Your task to perform on an android device: Clear the cart on amazon.com. Search for rayovac triple a on amazon.com, select the first entry, add it to the cart, then select checkout. Image 0: 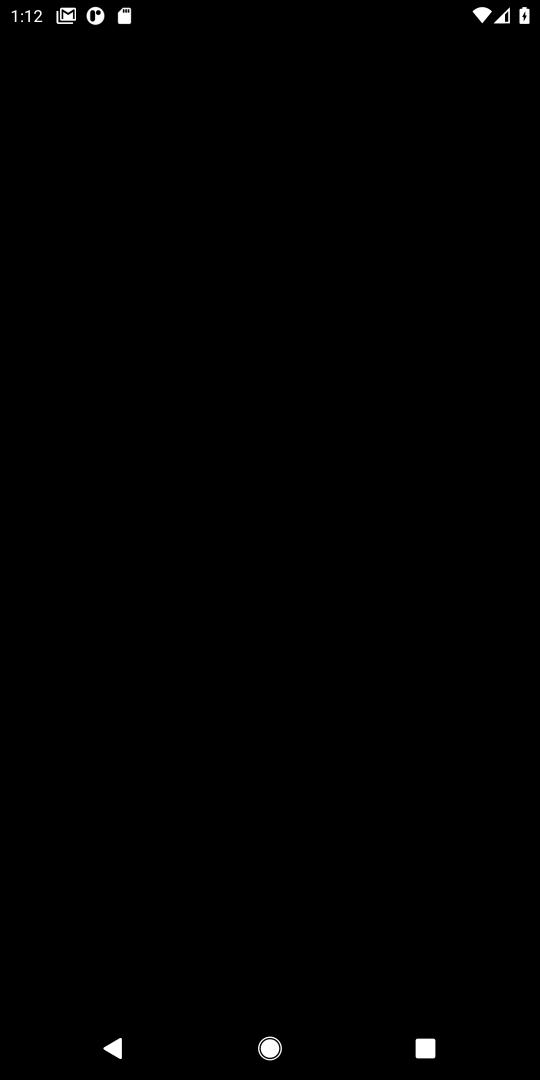
Step 0: press home button
Your task to perform on an android device: Clear the cart on amazon.com. Search for rayovac triple a on amazon.com, select the first entry, add it to the cart, then select checkout. Image 1: 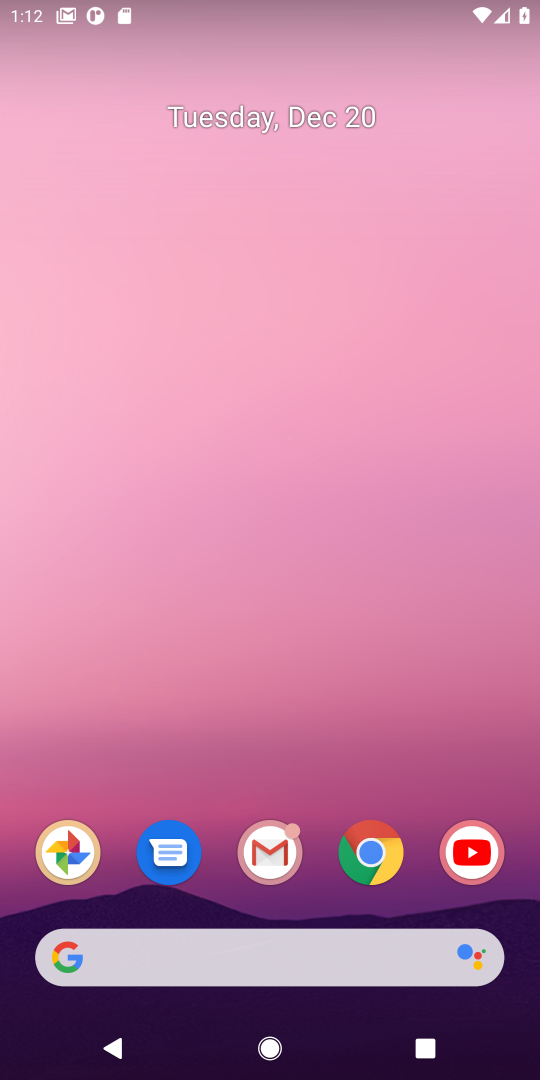
Step 1: click (372, 862)
Your task to perform on an android device: Clear the cart on amazon.com. Search for rayovac triple a on amazon.com, select the first entry, add it to the cart, then select checkout. Image 2: 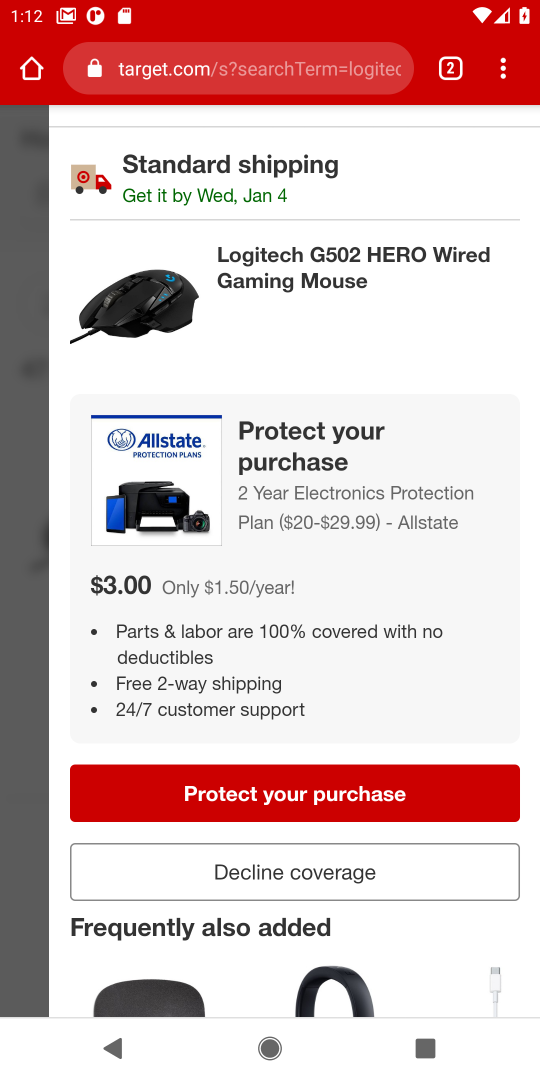
Step 2: click (211, 83)
Your task to perform on an android device: Clear the cart on amazon.com. Search for rayovac triple a on amazon.com, select the first entry, add it to the cart, then select checkout. Image 3: 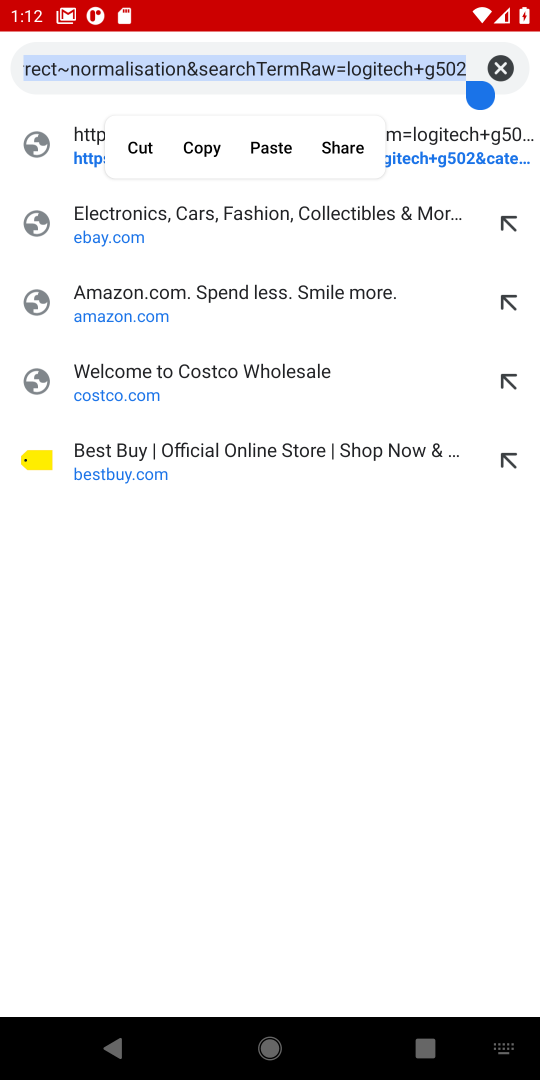
Step 3: click (84, 317)
Your task to perform on an android device: Clear the cart on amazon.com. Search for rayovac triple a on amazon.com, select the first entry, add it to the cart, then select checkout. Image 4: 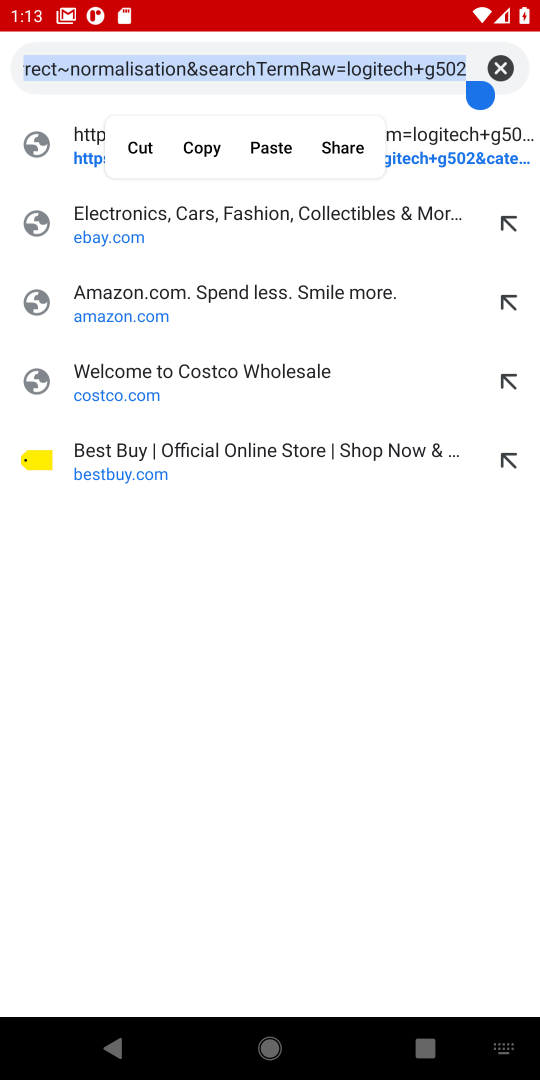
Step 4: click (111, 310)
Your task to perform on an android device: Clear the cart on amazon.com. Search for rayovac triple a on amazon.com, select the first entry, add it to the cart, then select checkout. Image 5: 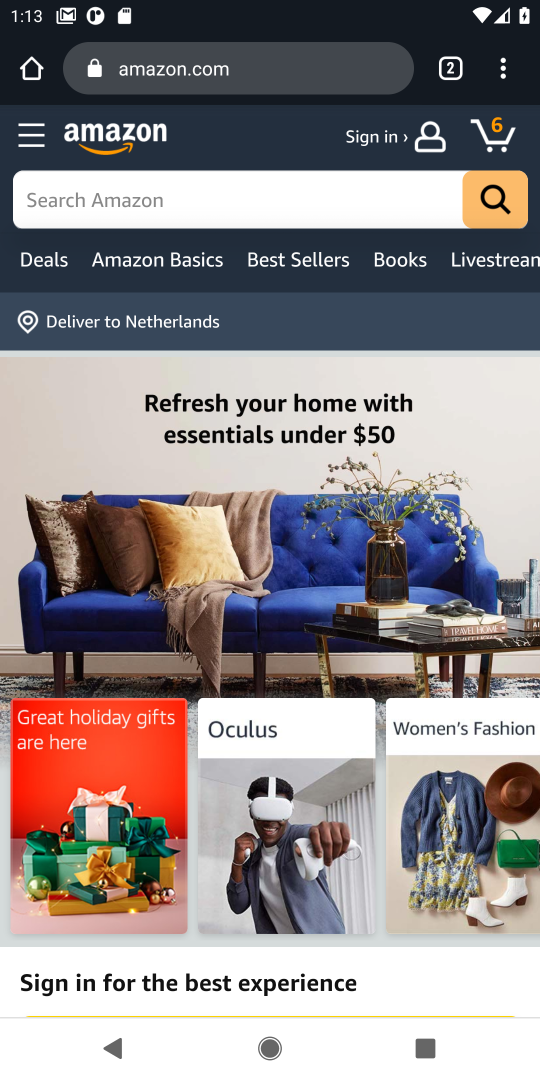
Step 5: click (491, 138)
Your task to perform on an android device: Clear the cart on amazon.com. Search for rayovac triple a on amazon.com, select the first entry, add it to the cart, then select checkout. Image 6: 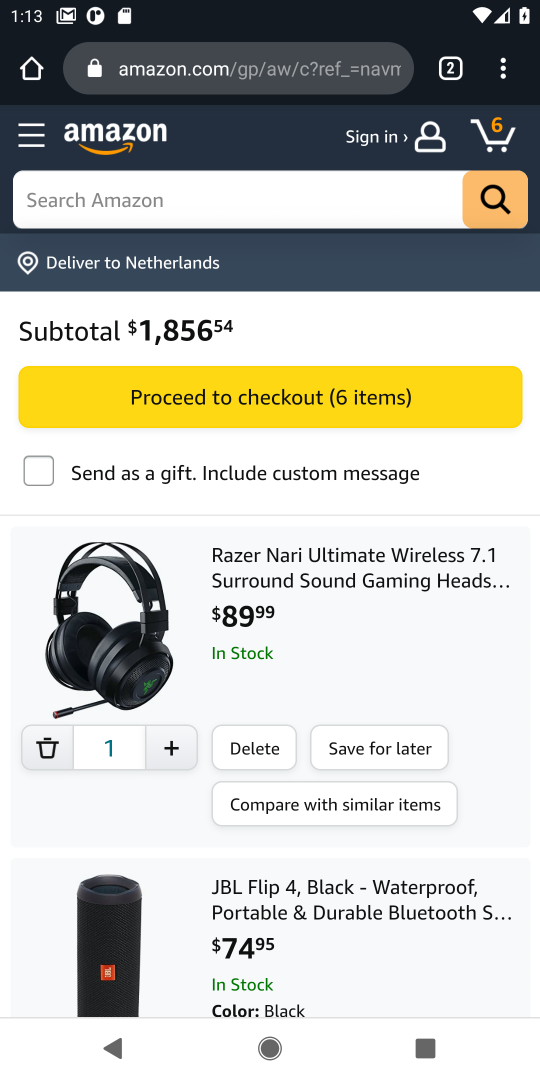
Step 6: click (251, 747)
Your task to perform on an android device: Clear the cart on amazon.com. Search for rayovac triple a on amazon.com, select the first entry, add it to the cart, then select checkout. Image 7: 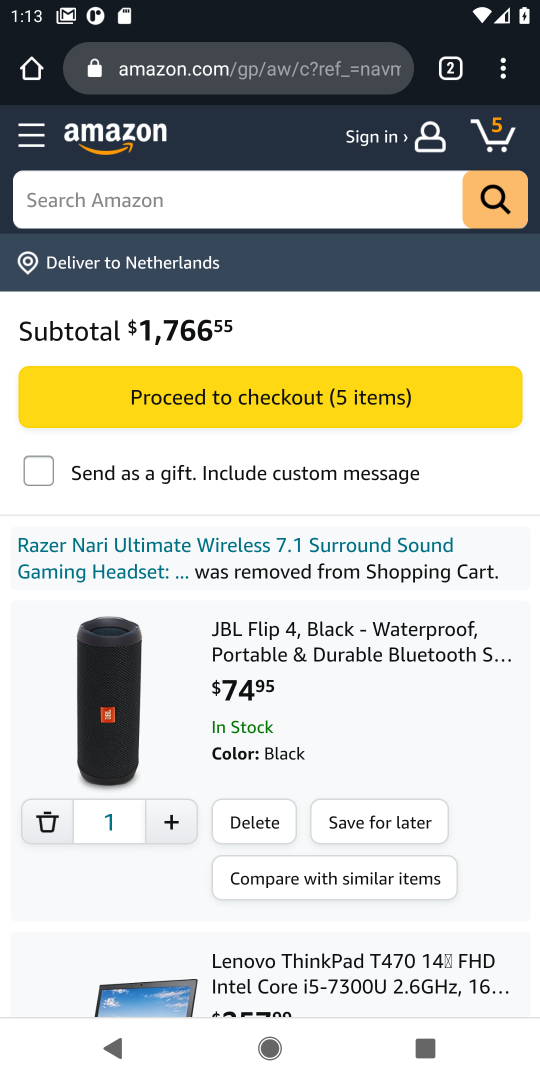
Step 7: click (239, 811)
Your task to perform on an android device: Clear the cart on amazon.com. Search for rayovac triple a on amazon.com, select the first entry, add it to the cart, then select checkout. Image 8: 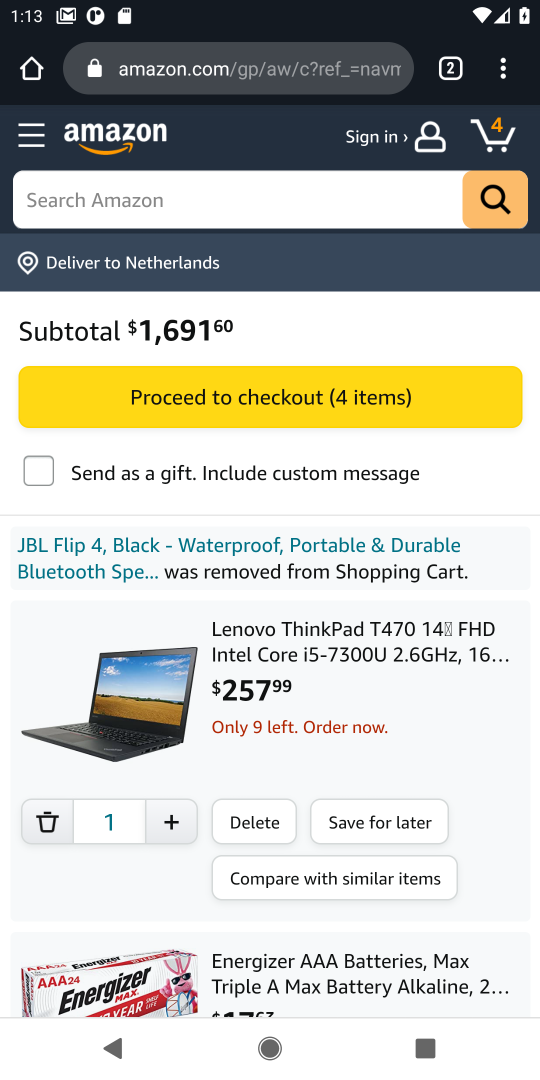
Step 8: click (239, 821)
Your task to perform on an android device: Clear the cart on amazon.com. Search for rayovac triple a on amazon.com, select the first entry, add it to the cart, then select checkout. Image 9: 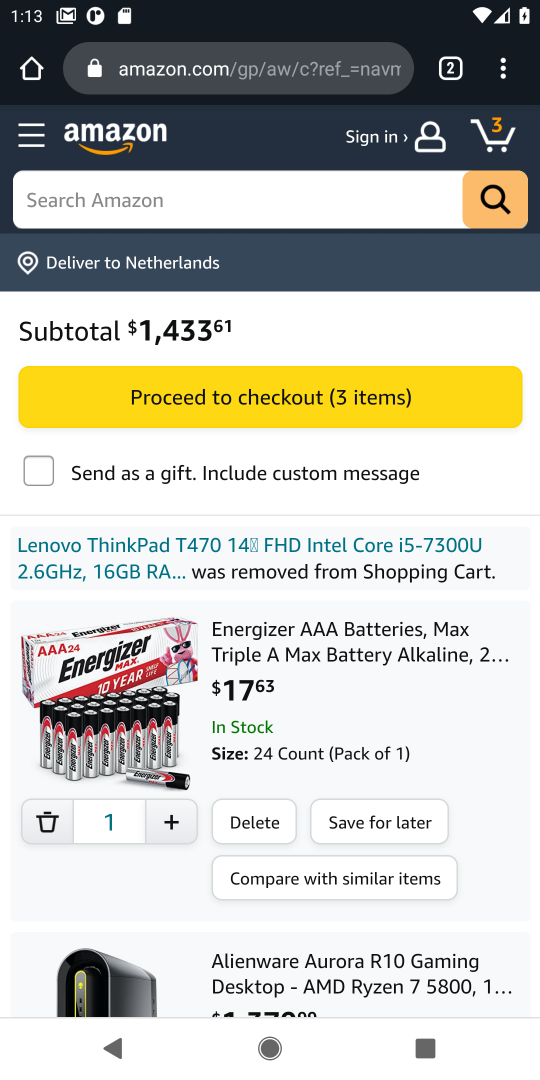
Step 9: click (239, 821)
Your task to perform on an android device: Clear the cart on amazon.com. Search for rayovac triple a on amazon.com, select the first entry, add it to the cart, then select checkout. Image 10: 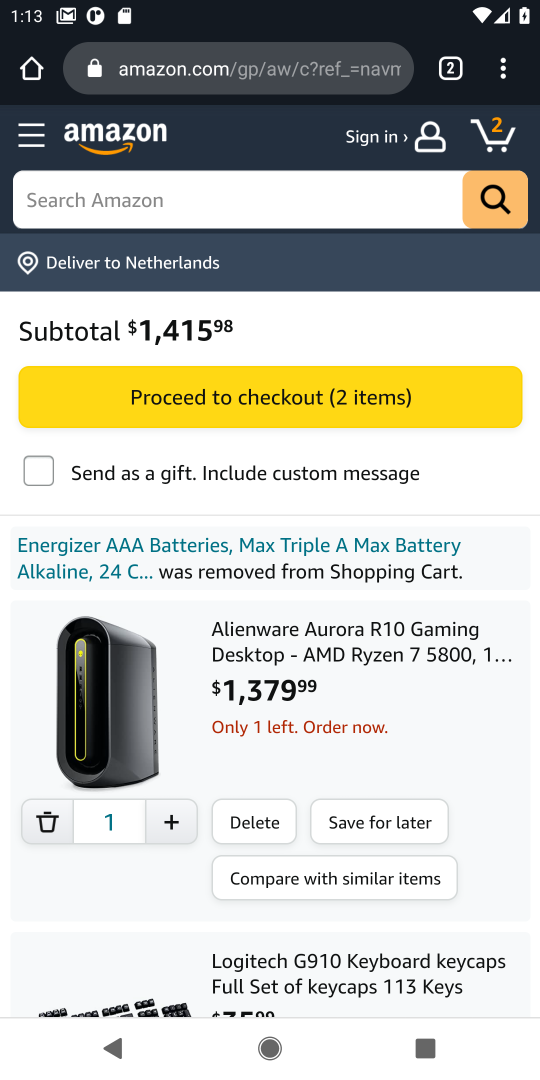
Step 10: click (239, 821)
Your task to perform on an android device: Clear the cart on amazon.com. Search for rayovac triple a on amazon.com, select the first entry, add it to the cart, then select checkout. Image 11: 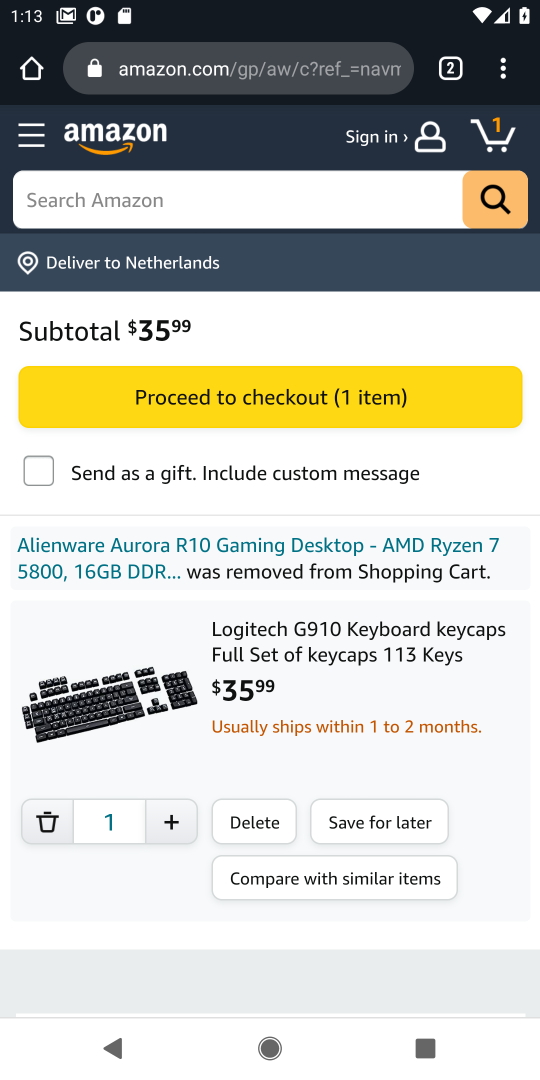
Step 11: click (239, 821)
Your task to perform on an android device: Clear the cart on amazon.com. Search for rayovac triple a on amazon.com, select the first entry, add it to the cart, then select checkout. Image 12: 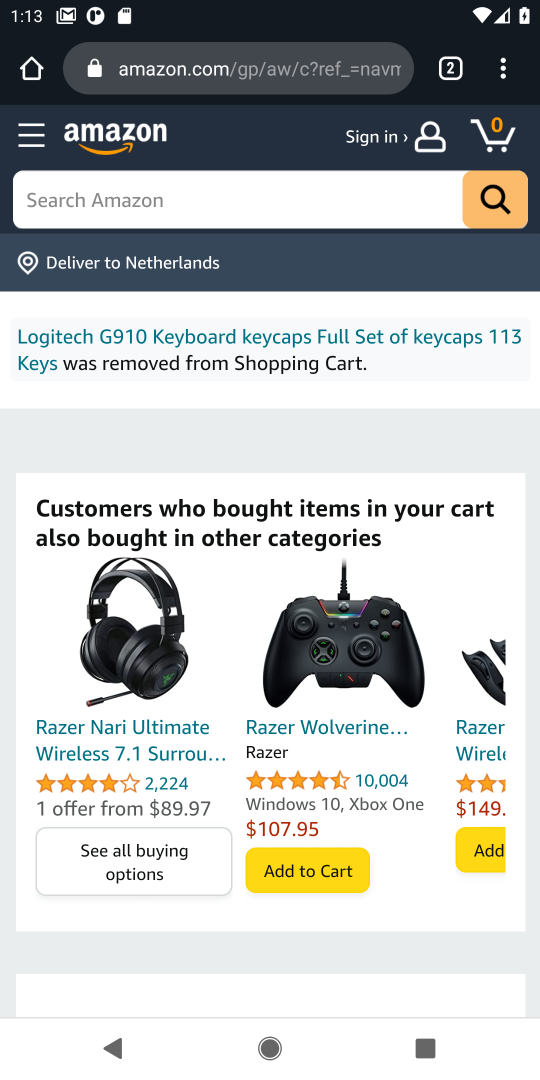
Step 12: click (52, 199)
Your task to perform on an android device: Clear the cart on amazon.com. Search for rayovac triple a on amazon.com, select the first entry, add it to the cart, then select checkout. Image 13: 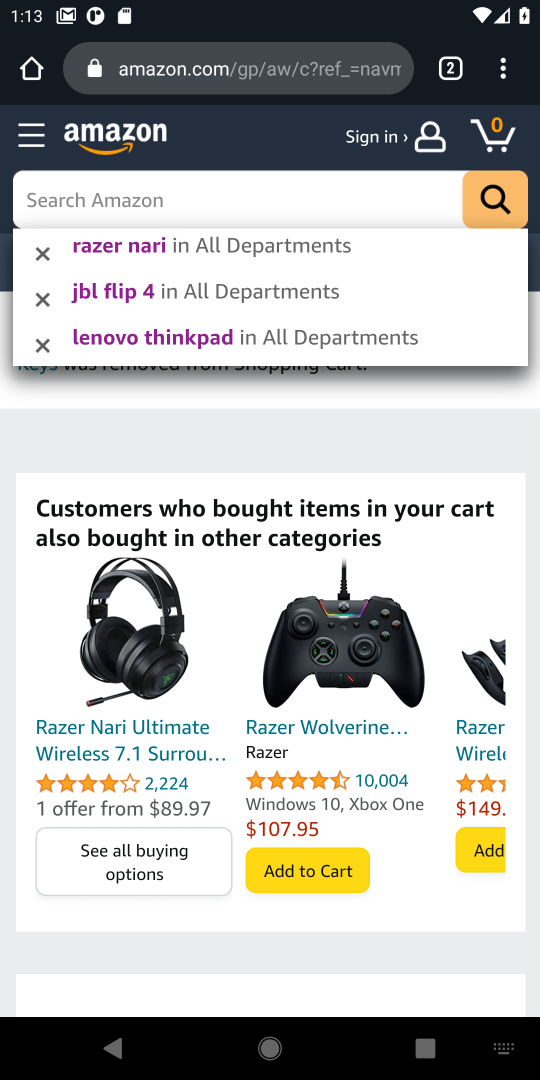
Step 13: type " rayovac triple a"
Your task to perform on an android device: Clear the cart on amazon.com. Search for rayovac triple a on amazon.com, select the first entry, add it to the cart, then select checkout. Image 14: 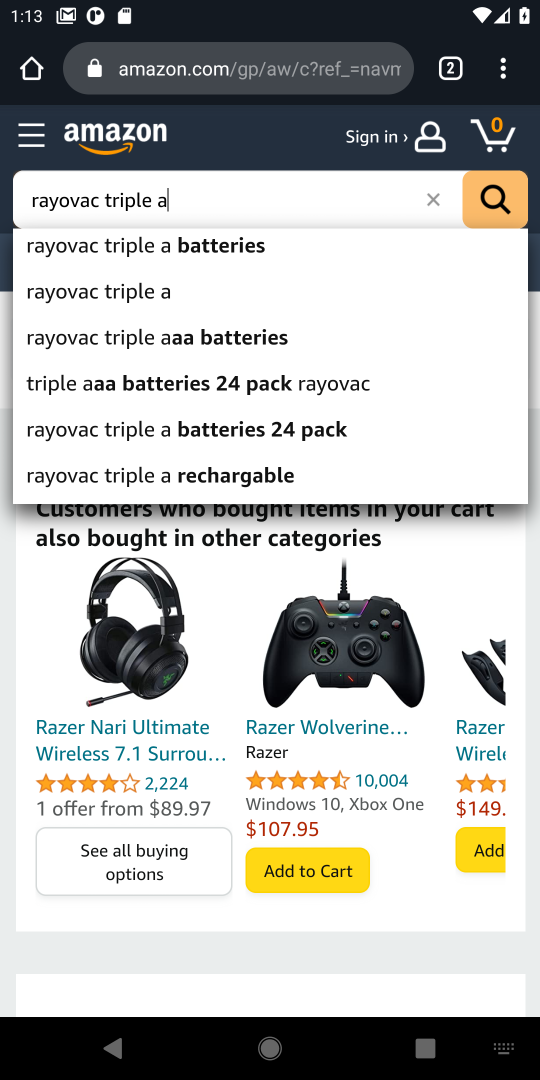
Step 14: click (155, 249)
Your task to perform on an android device: Clear the cart on amazon.com. Search for rayovac triple a on amazon.com, select the first entry, add it to the cart, then select checkout. Image 15: 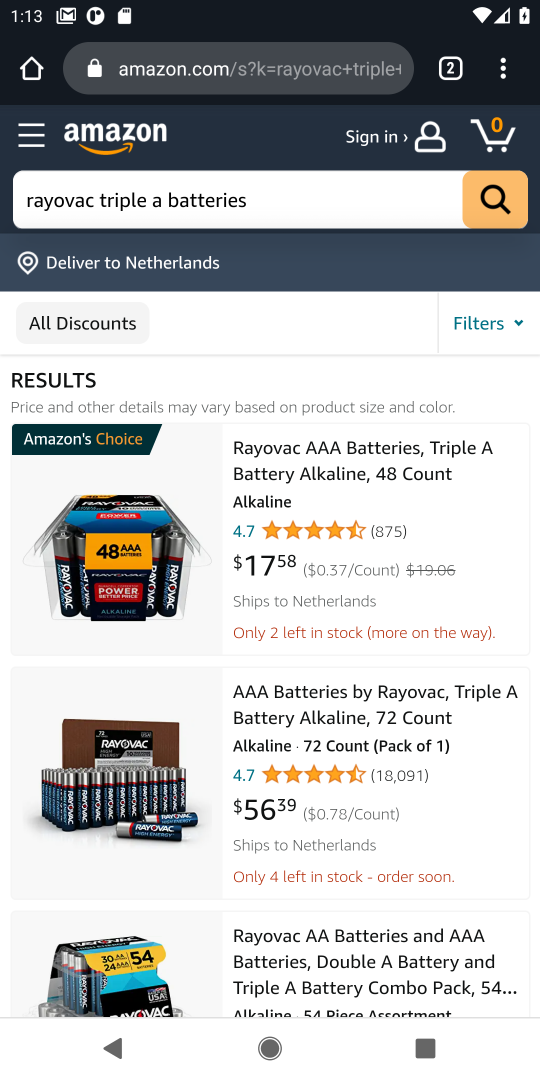
Step 15: click (277, 489)
Your task to perform on an android device: Clear the cart on amazon.com. Search for rayovac triple a on amazon.com, select the first entry, add it to the cart, then select checkout. Image 16: 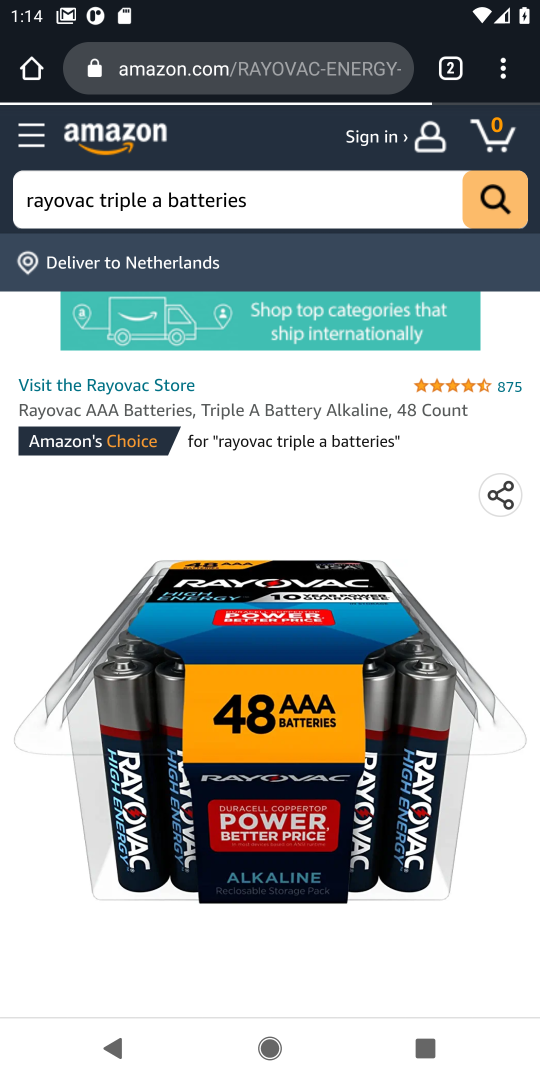
Step 16: drag from (269, 628) to (249, 377)
Your task to perform on an android device: Clear the cart on amazon.com. Search for rayovac triple a on amazon.com, select the first entry, add it to the cart, then select checkout. Image 17: 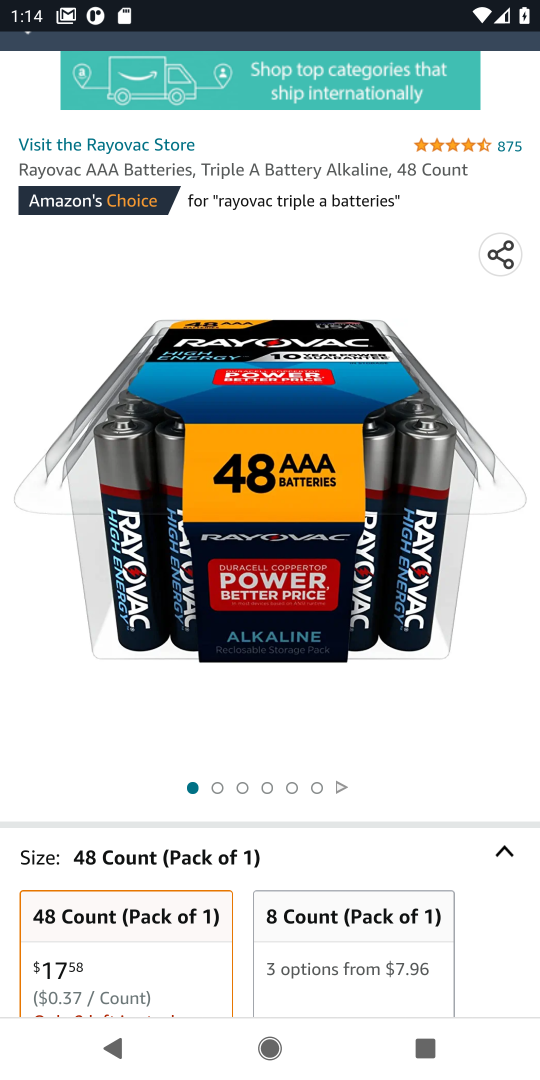
Step 17: drag from (269, 814) to (239, 340)
Your task to perform on an android device: Clear the cart on amazon.com. Search for rayovac triple a on amazon.com, select the first entry, add it to the cart, then select checkout. Image 18: 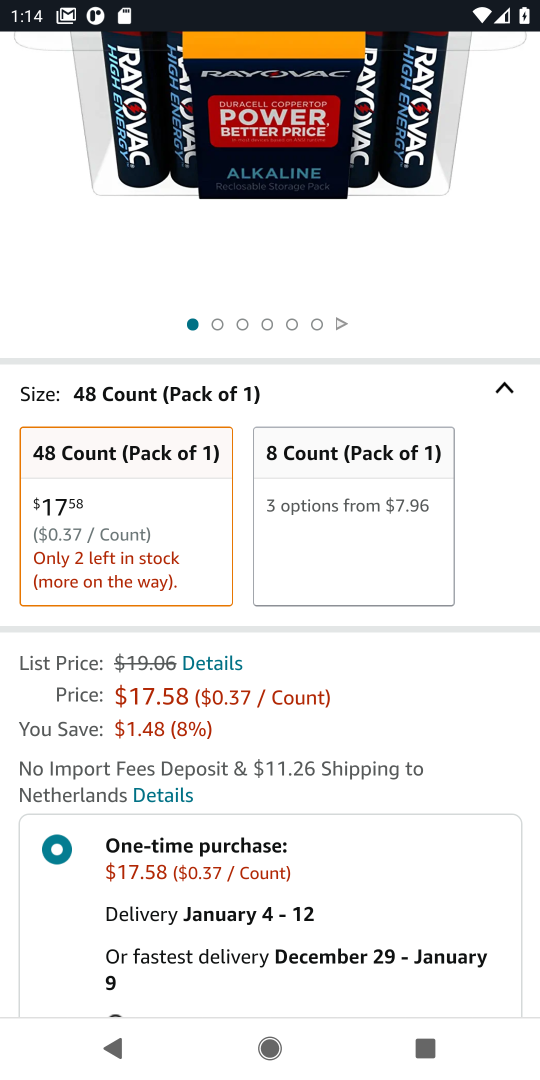
Step 18: drag from (262, 590) to (241, 319)
Your task to perform on an android device: Clear the cart on amazon.com. Search for rayovac triple a on amazon.com, select the first entry, add it to the cart, then select checkout. Image 19: 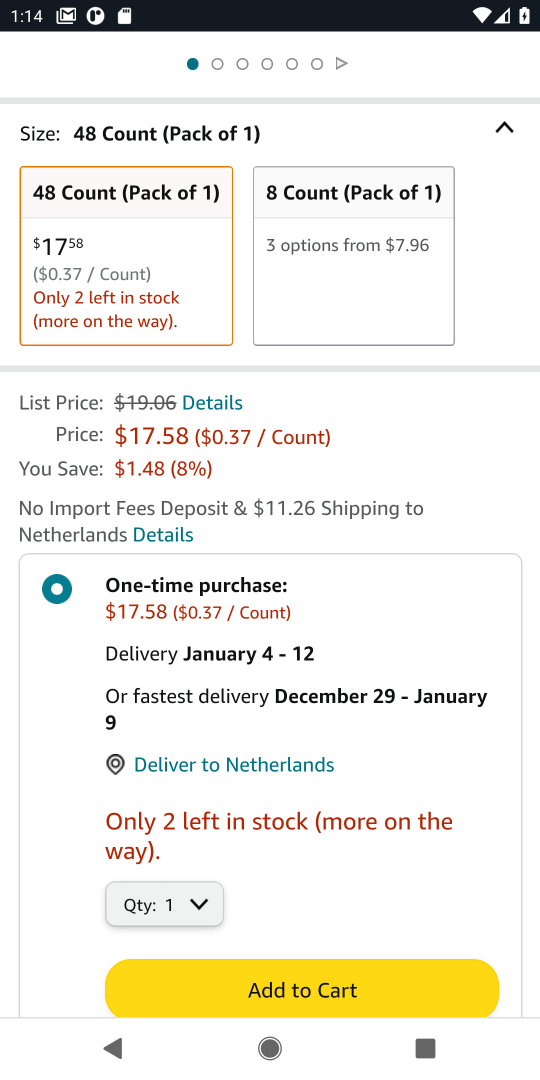
Step 19: drag from (276, 722) to (246, 380)
Your task to perform on an android device: Clear the cart on amazon.com. Search for rayovac triple a on amazon.com, select the first entry, add it to the cart, then select checkout. Image 20: 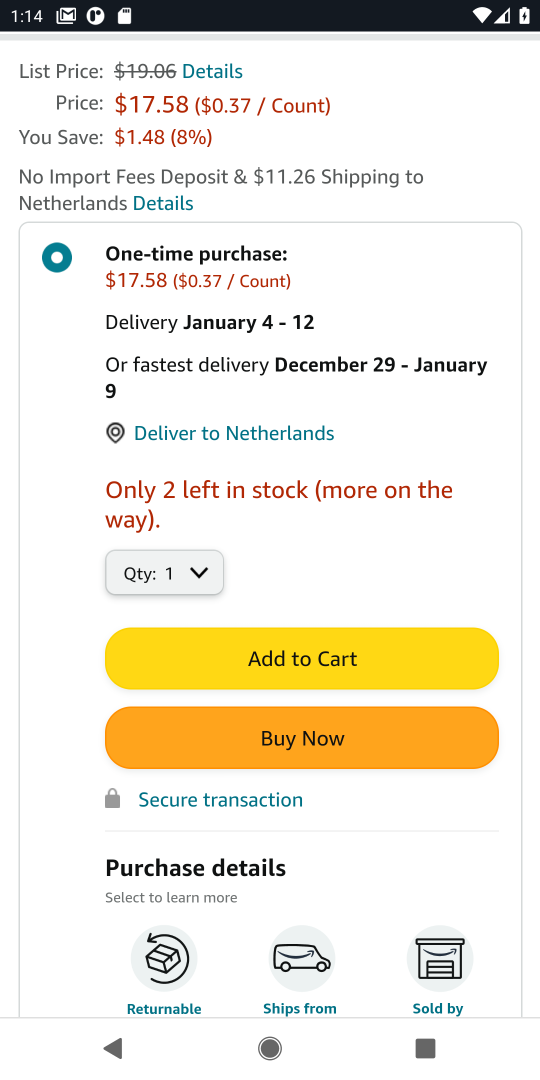
Step 20: click (260, 654)
Your task to perform on an android device: Clear the cart on amazon.com. Search for rayovac triple a on amazon.com, select the first entry, add it to the cart, then select checkout. Image 21: 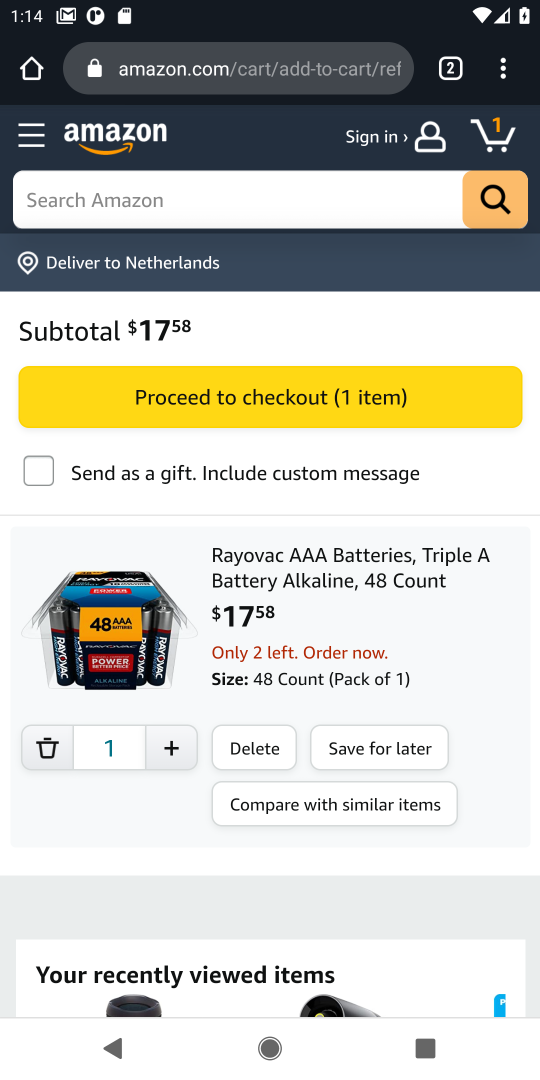
Step 21: click (227, 394)
Your task to perform on an android device: Clear the cart on amazon.com. Search for rayovac triple a on amazon.com, select the first entry, add it to the cart, then select checkout. Image 22: 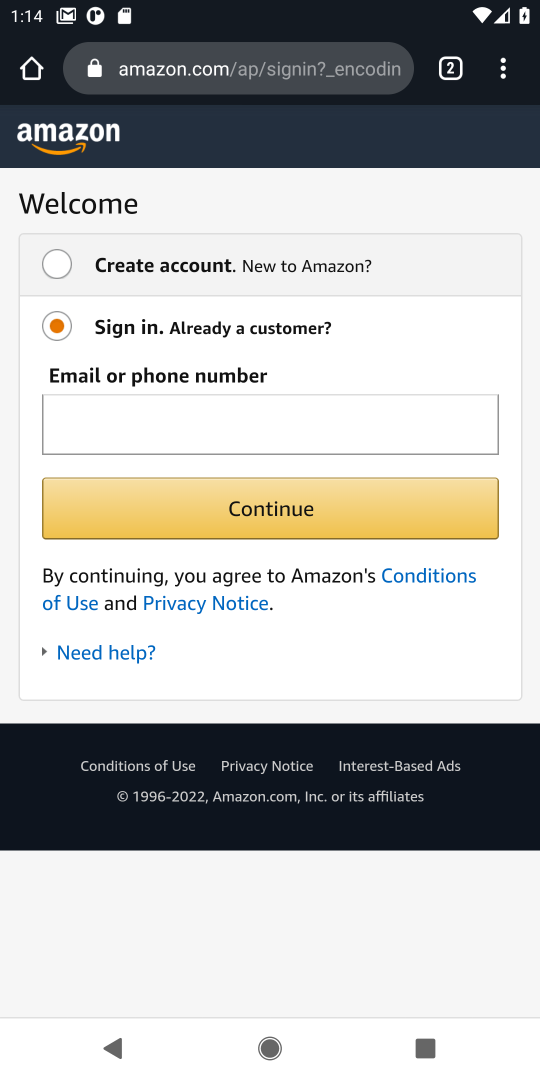
Step 22: task complete